Your task to perform on an android device: turn off improve location accuracy Image 0: 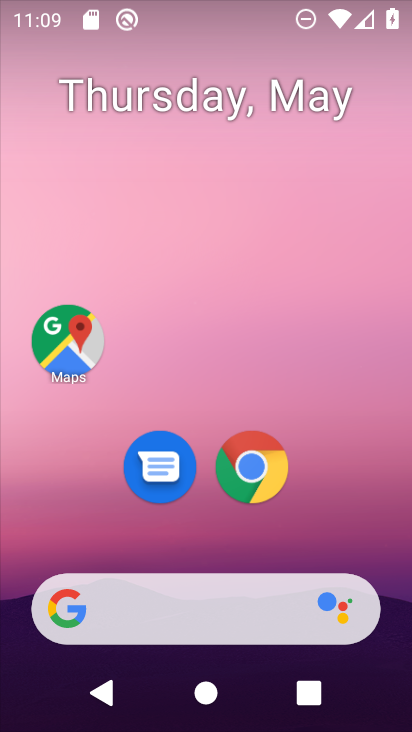
Step 0: drag from (171, 555) to (231, 4)
Your task to perform on an android device: turn off improve location accuracy Image 1: 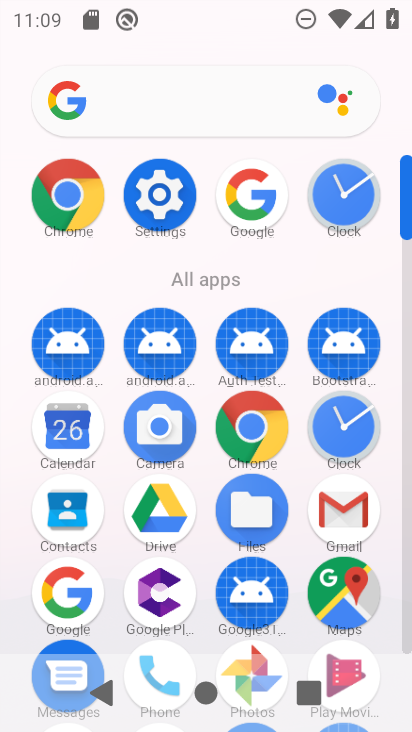
Step 1: drag from (203, 281) to (208, 121)
Your task to perform on an android device: turn off improve location accuracy Image 2: 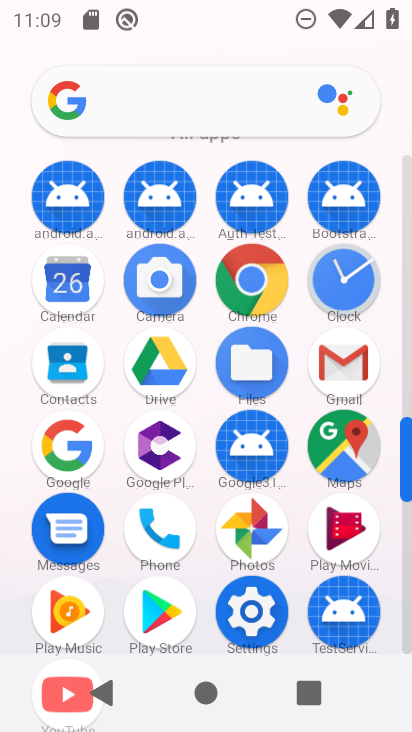
Step 2: click (200, 96)
Your task to perform on an android device: turn off improve location accuracy Image 3: 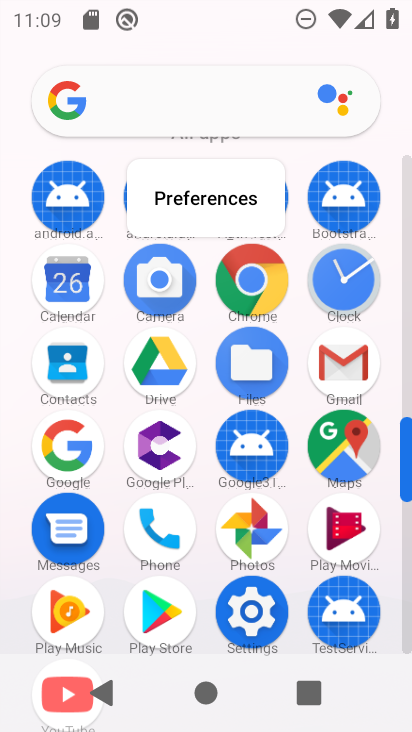
Step 3: click (263, 616)
Your task to perform on an android device: turn off improve location accuracy Image 4: 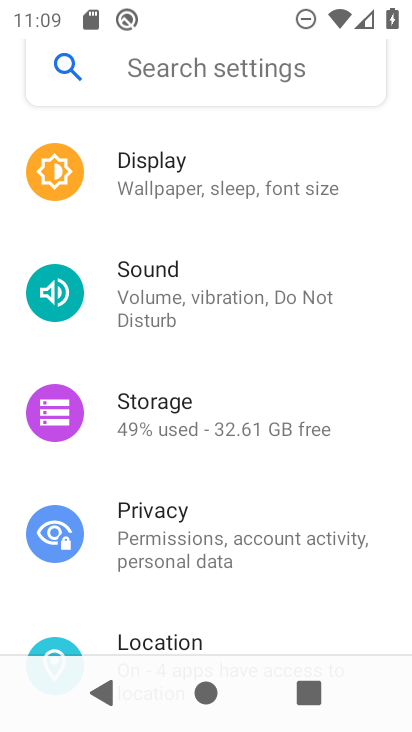
Step 4: drag from (225, 376) to (201, 174)
Your task to perform on an android device: turn off improve location accuracy Image 5: 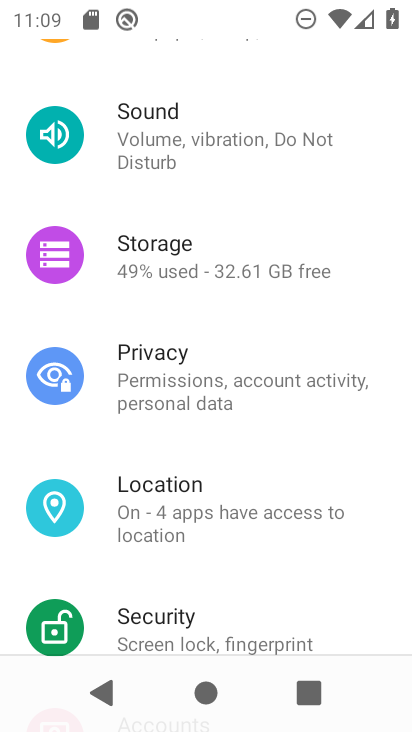
Step 5: click (201, 521)
Your task to perform on an android device: turn off improve location accuracy Image 6: 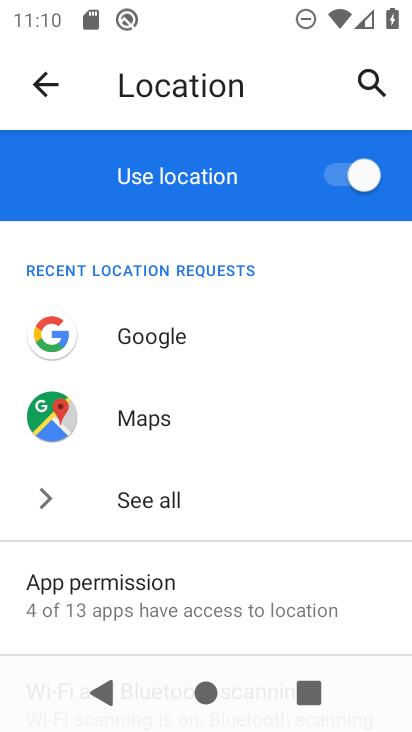
Step 6: drag from (178, 618) to (168, 195)
Your task to perform on an android device: turn off improve location accuracy Image 7: 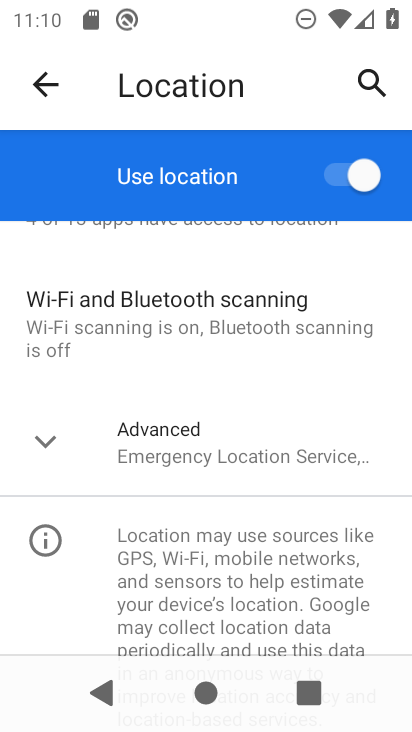
Step 7: click (170, 465)
Your task to perform on an android device: turn off improve location accuracy Image 8: 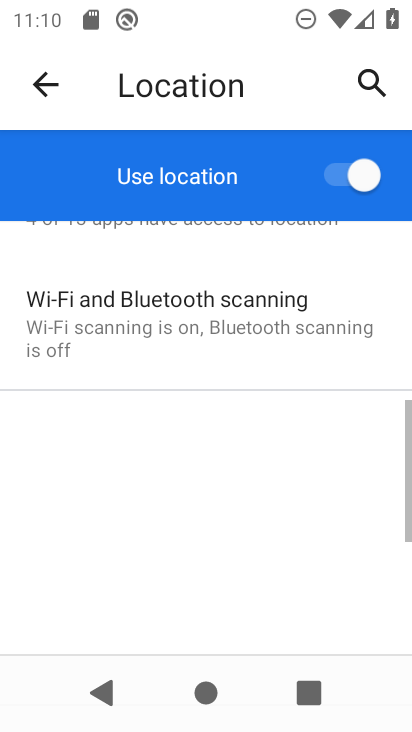
Step 8: drag from (170, 465) to (137, 173)
Your task to perform on an android device: turn off improve location accuracy Image 9: 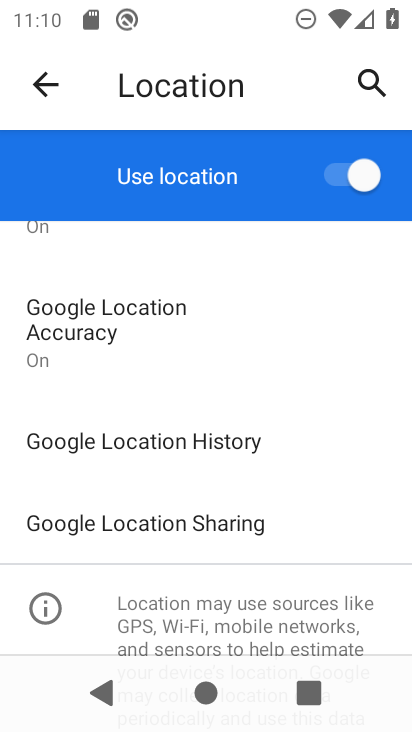
Step 9: click (161, 343)
Your task to perform on an android device: turn off improve location accuracy Image 10: 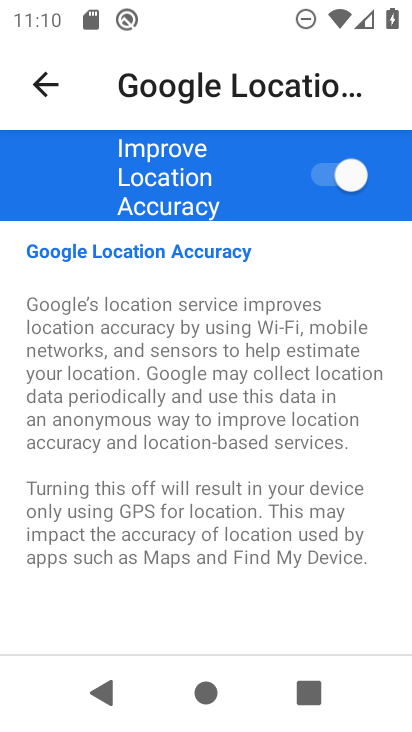
Step 10: click (341, 176)
Your task to perform on an android device: turn off improve location accuracy Image 11: 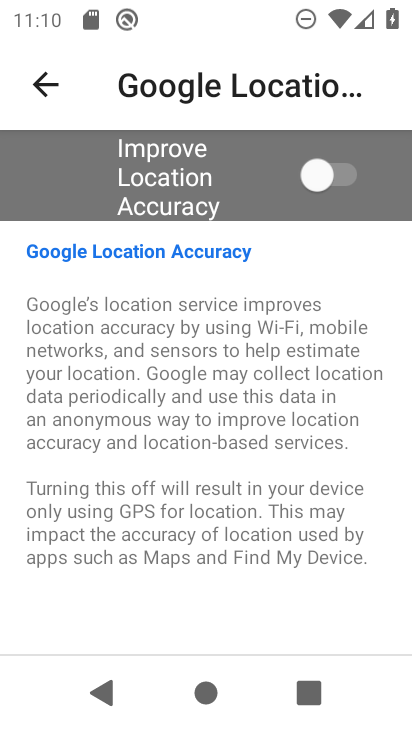
Step 11: task complete